Your task to perform on an android device: toggle notification dots Image 0: 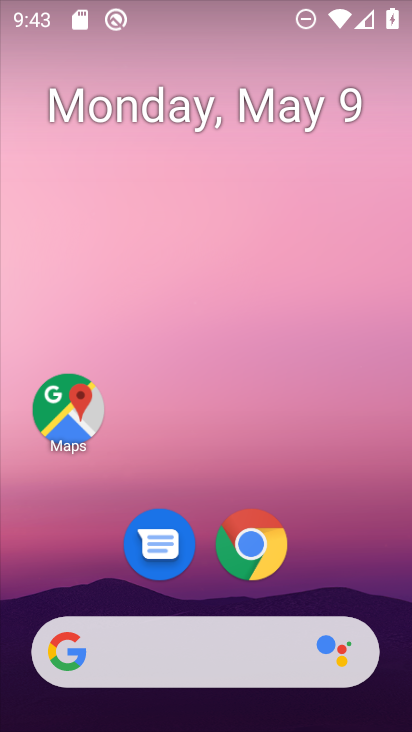
Step 0: drag from (344, 533) to (213, 142)
Your task to perform on an android device: toggle notification dots Image 1: 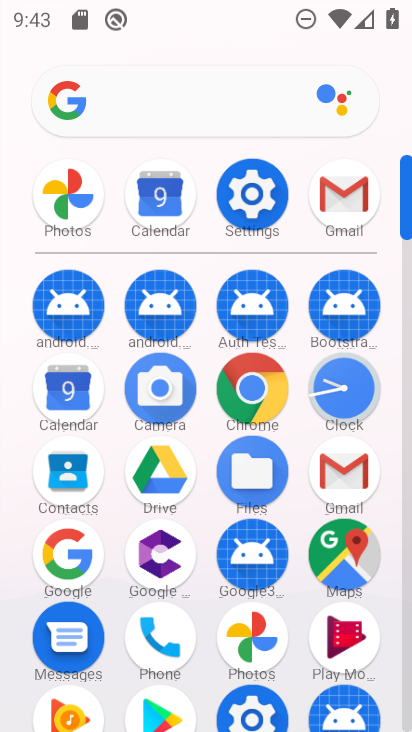
Step 1: click (247, 193)
Your task to perform on an android device: toggle notification dots Image 2: 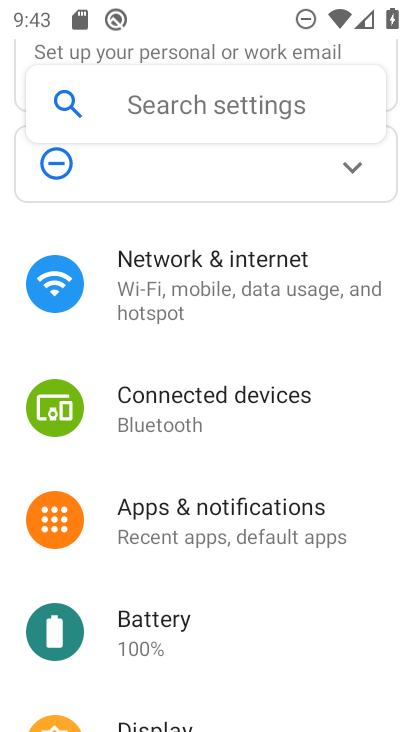
Step 2: click (240, 507)
Your task to perform on an android device: toggle notification dots Image 3: 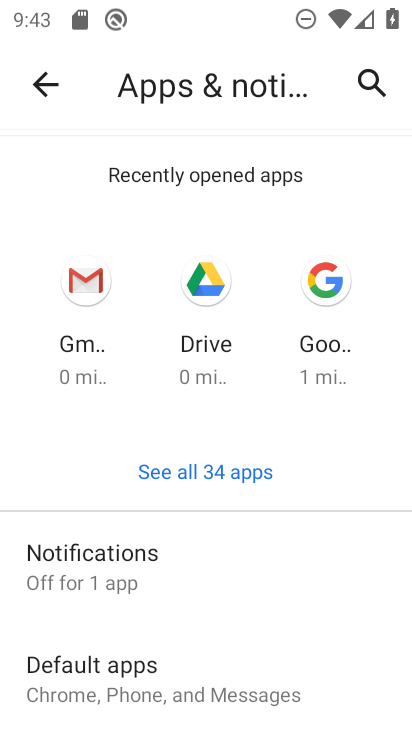
Step 3: drag from (229, 567) to (187, 280)
Your task to perform on an android device: toggle notification dots Image 4: 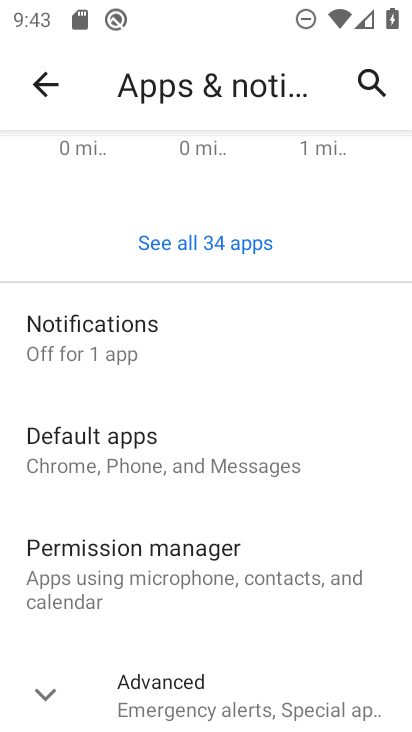
Step 4: click (103, 316)
Your task to perform on an android device: toggle notification dots Image 5: 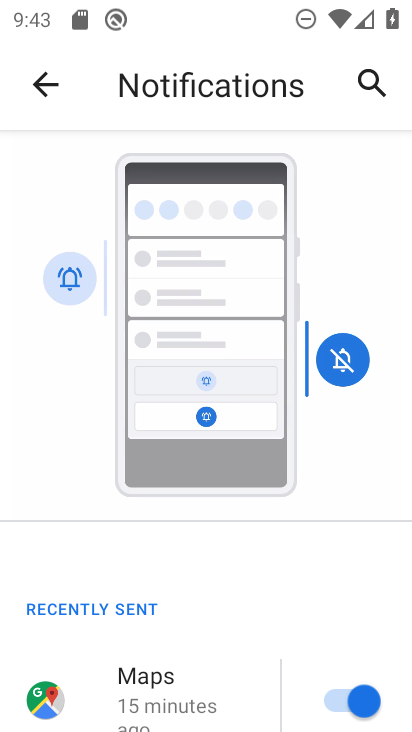
Step 5: drag from (198, 584) to (133, 82)
Your task to perform on an android device: toggle notification dots Image 6: 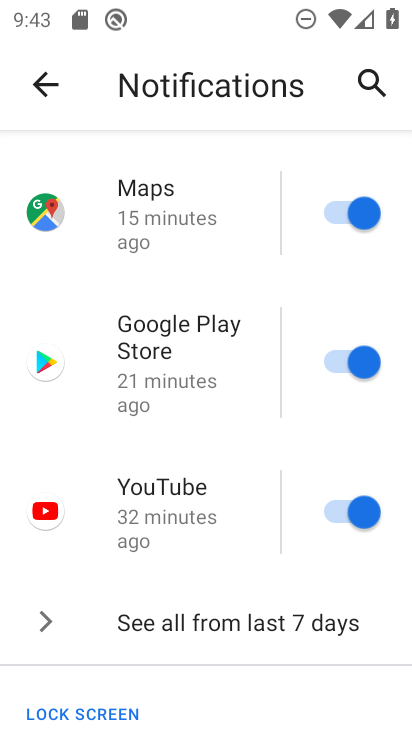
Step 6: drag from (197, 582) to (132, 185)
Your task to perform on an android device: toggle notification dots Image 7: 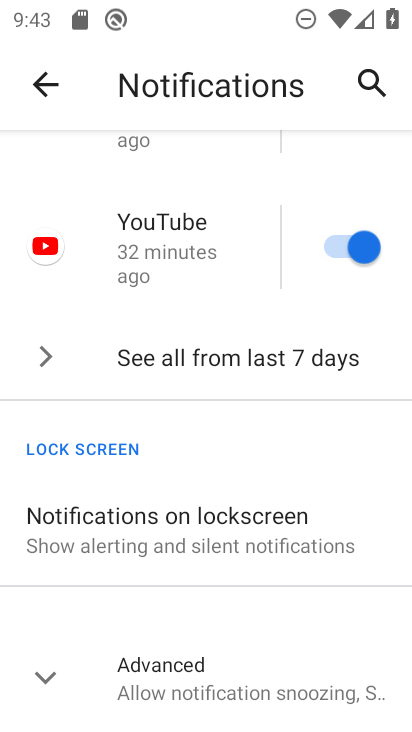
Step 7: click (45, 677)
Your task to perform on an android device: toggle notification dots Image 8: 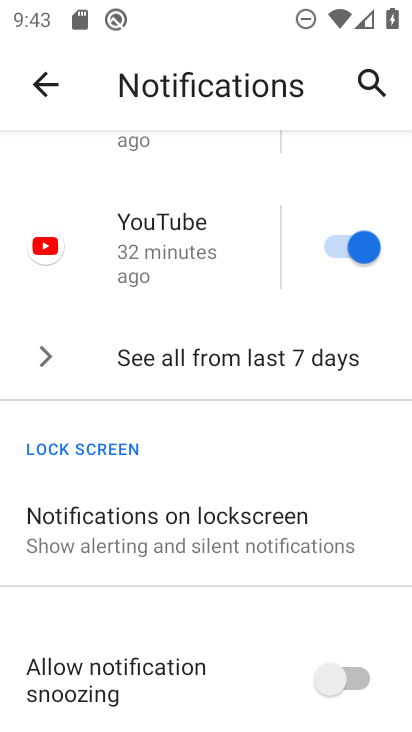
Step 8: drag from (174, 619) to (140, 286)
Your task to perform on an android device: toggle notification dots Image 9: 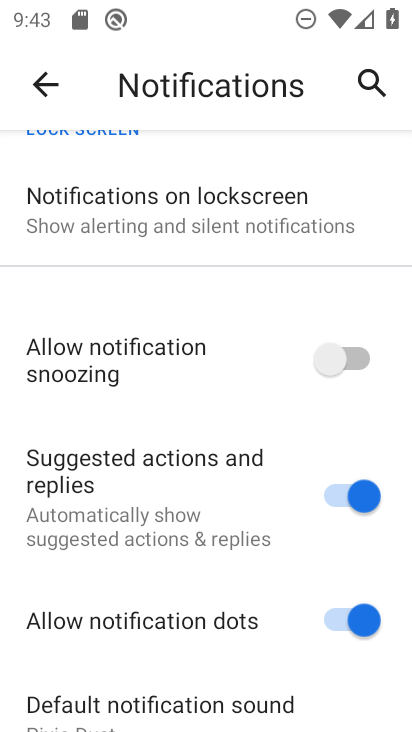
Step 9: drag from (250, 529) to (210, 292)
Your task to perform on an android device: toggle notification dots Image 10: 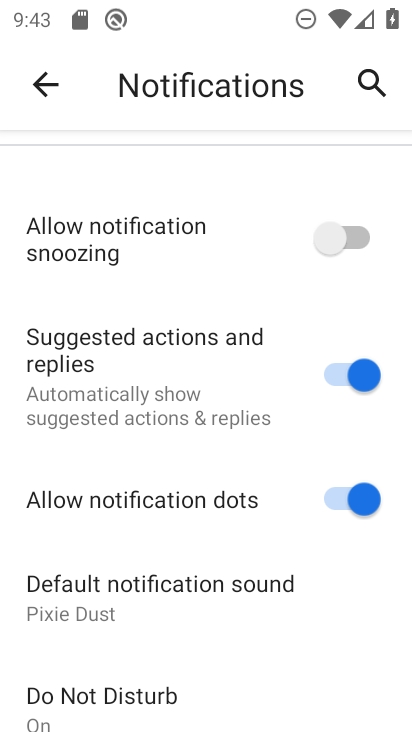
Step 10: click (369, 500)
Your task to perform on an android device: toggle notification dots Image 11: 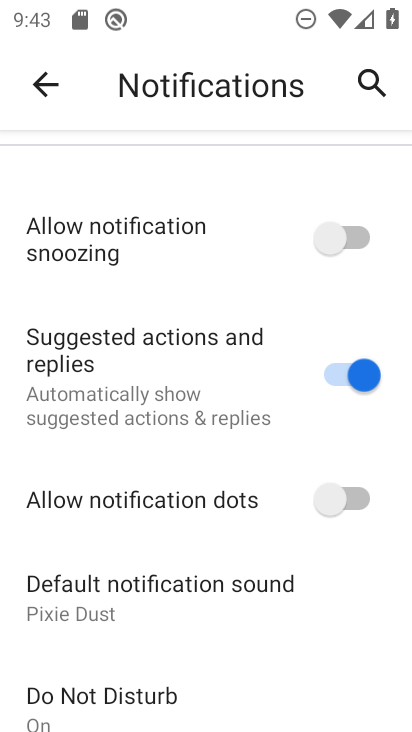
Step 11: task complete